Your task to perform on an android device: delete a single message in the gmail app Image 0: 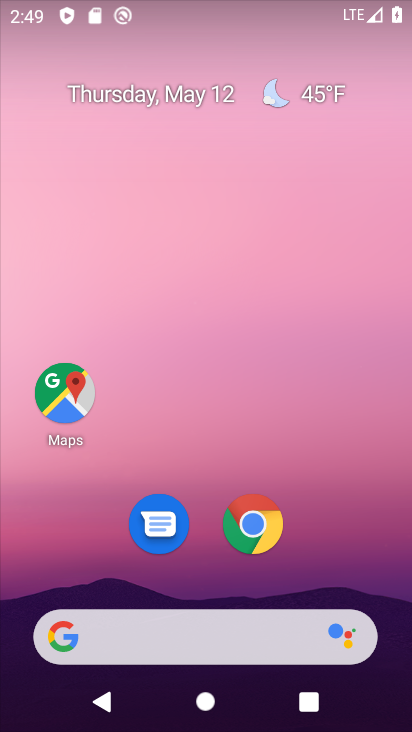
Step 0: drag from (195, 459) to (240, 0)
Your task to perform on an android device: delete a single message in the gmail app Image 1: 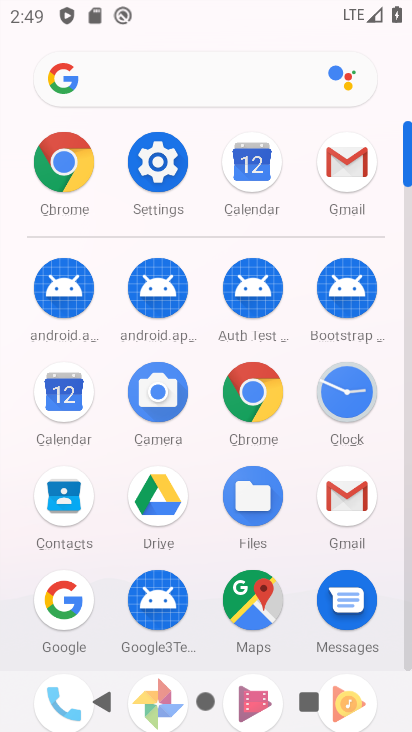
Step 1: click (341, 181)
Your task to perform on an android device: delete a single message in the gmail app Image 2: 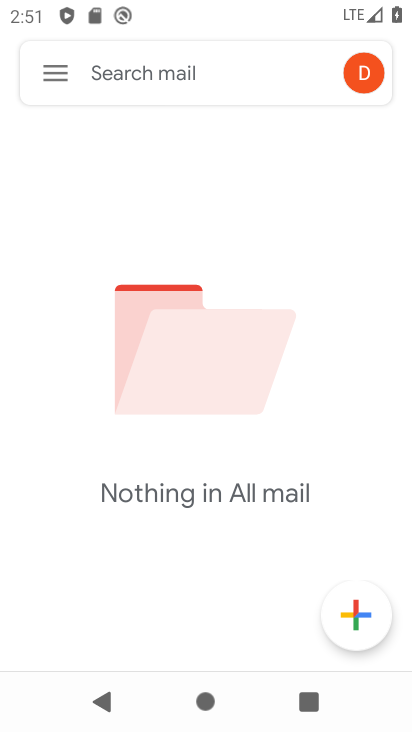
Step 2: task complete